Your task to perform on an android device: turn off javascript in the chrome app Image 0: 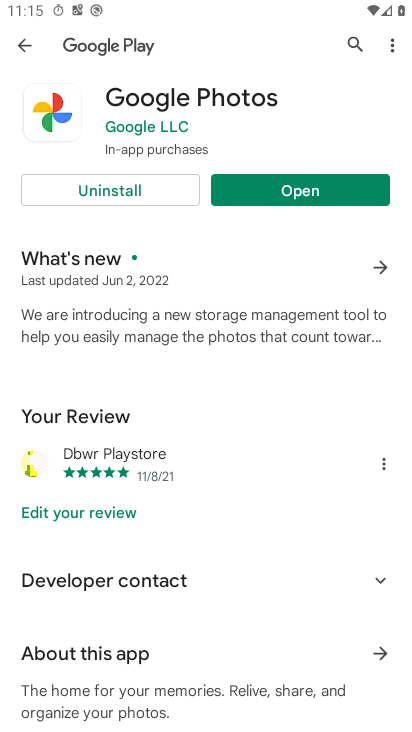
Step 0: press home button
Your task to perform on an android device: turn off javascript in the chrome app Image 1: 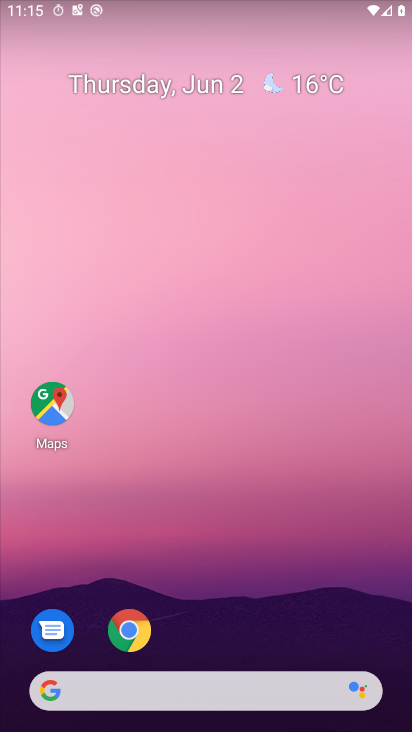
Step 1: click (138, 616)
Your task to perform on an android device: turn off javascript in the chrome app Image 2: 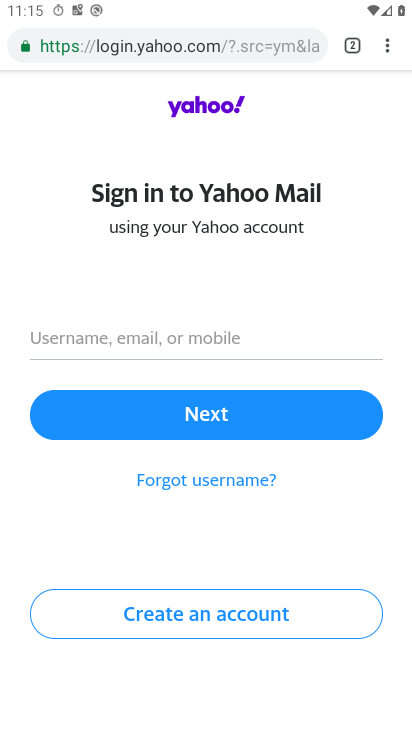
Step 2: click (383, 45)
Your task to perform on an android device: turn off javascript in the chrome app Image 3: 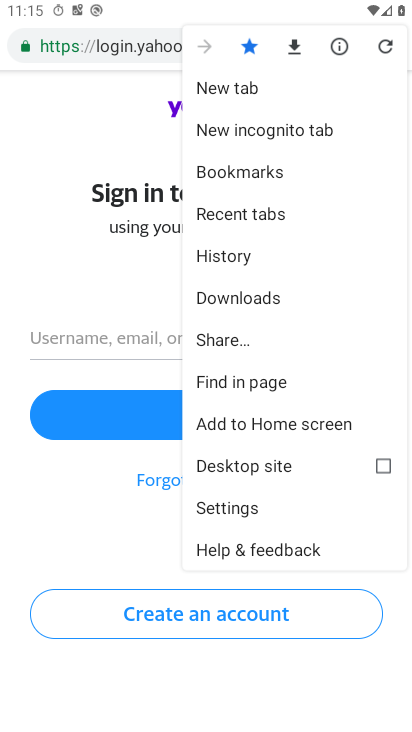
Step 3: click (237, 505)
Your task to perform on an android device: turn off javascript in the chrome app Image 4: 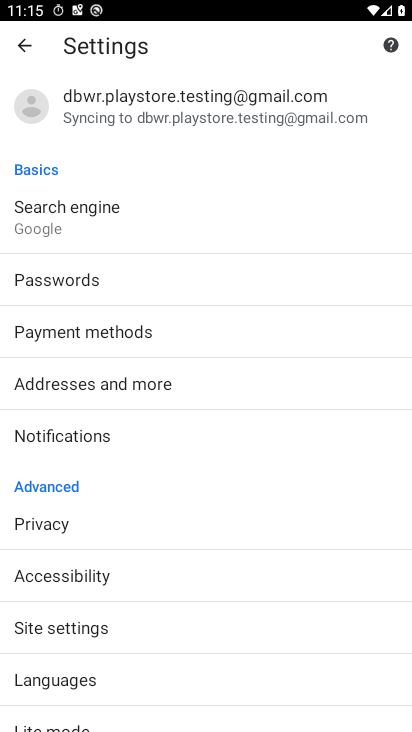
Step 4: click (107, 634)
Your task to perform on an android device: turn off javascript in the chrome app Image 5: 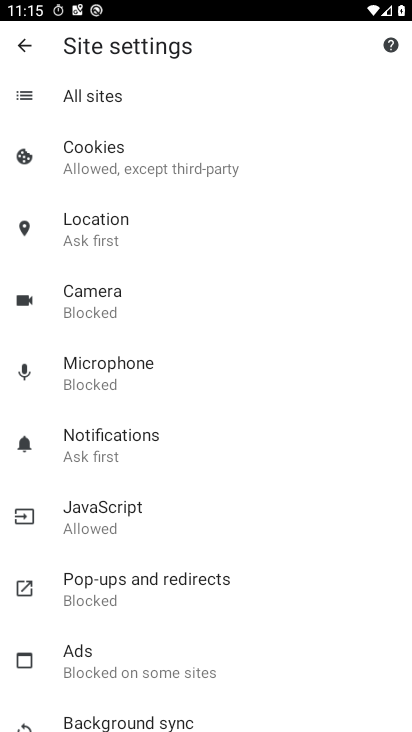
Step 5: click (124, 507)
Your task to perform on an android device: turn off javascript in the chrome app Image 6: 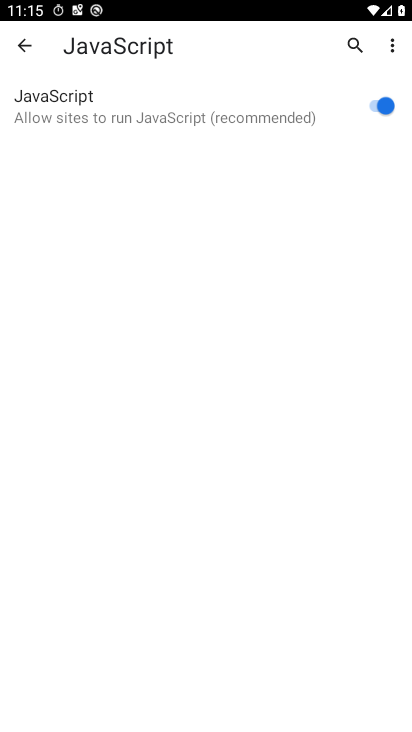
Step 6: click (363, 104)
Your task to perform on an android device: turn off javascript in the chrome app Image 7: 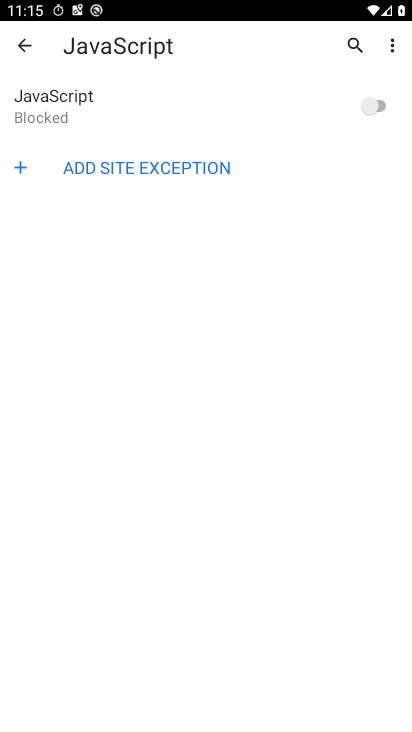
Step 7: task complete